Your task to perform on an android device: Open Yahoo.com Image 0: 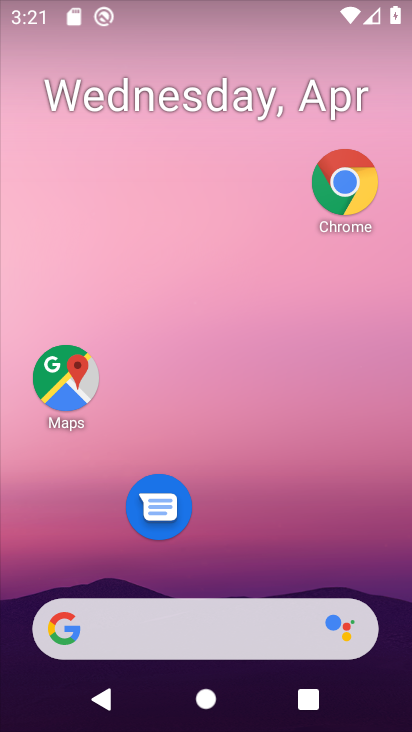
Step 0: click (341, 195)
Your task to perform on an android device: Open Yahoo.com Image 1: 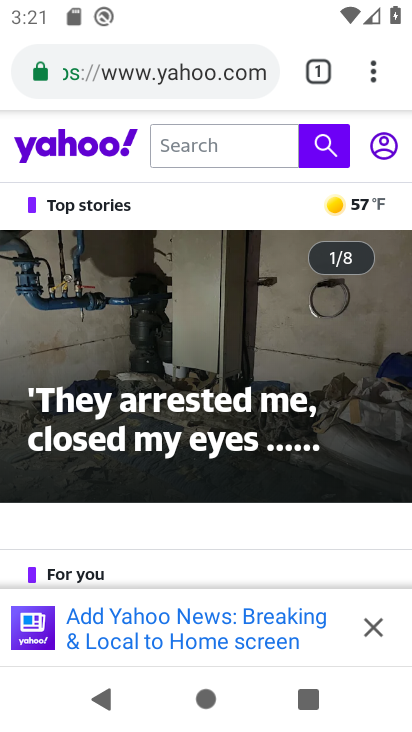
Step 1: task complete